Your task to perform on an android device: turn off location history Image 0: 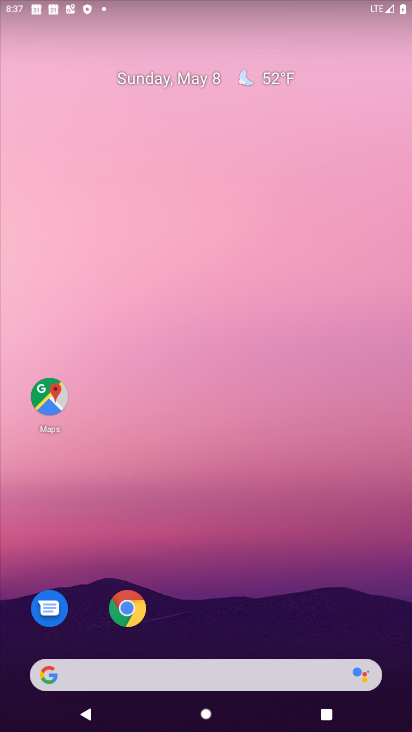
Step 0: drag from (291, 552) to (243, 3)
Your task to perform on an android device: turn off location history Image 1: 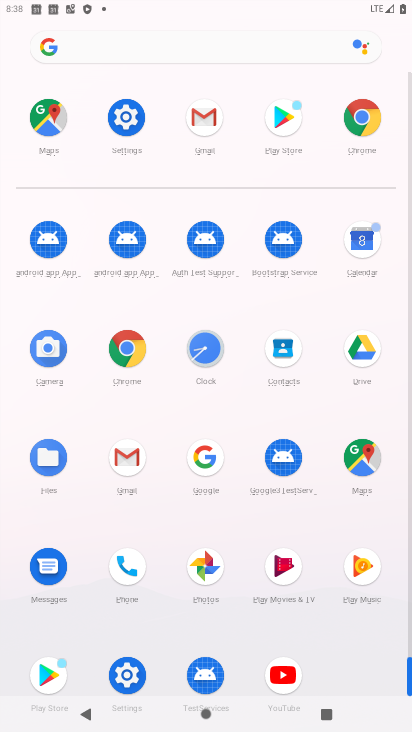
Step 1: click (124, 675)
Your task to perform on an android device: turn off location history Image 2: 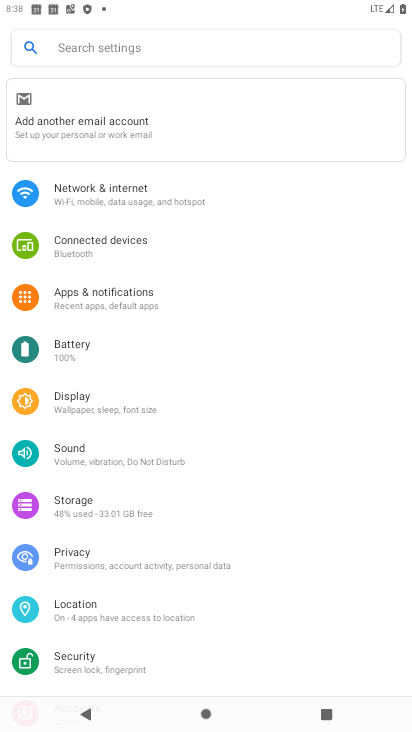
Step 2: drag from (355, 550) to (288, 121)
Your task to perform on an android device: turn off location history Image 3: 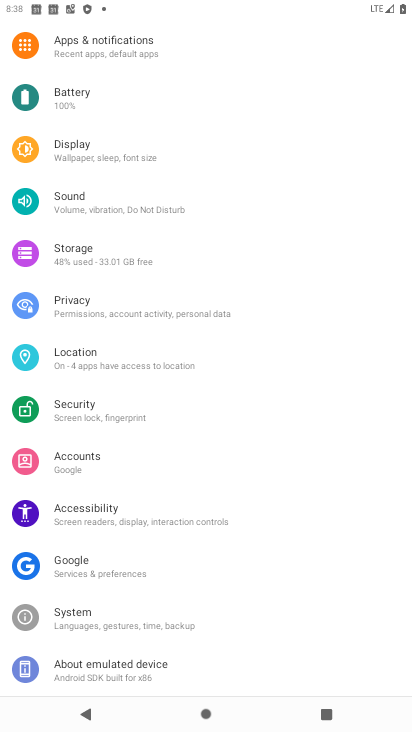
Step 3: click (94, 357)
Your task to perform on an android device: turn off location history Image 4: 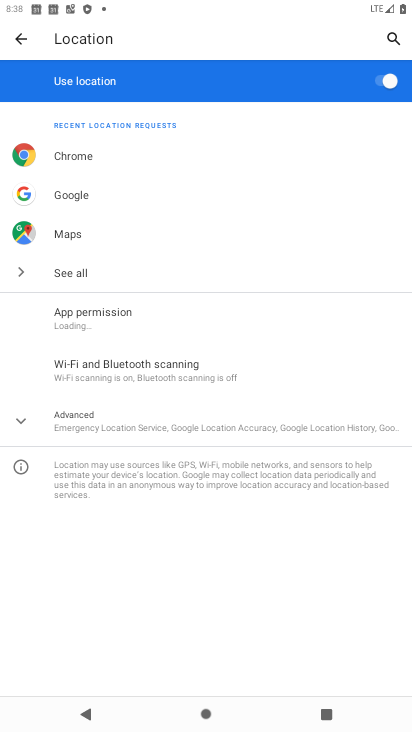
Step 4: click (49, 420)
Your task to perform on an android device: turn off location history Image 5: 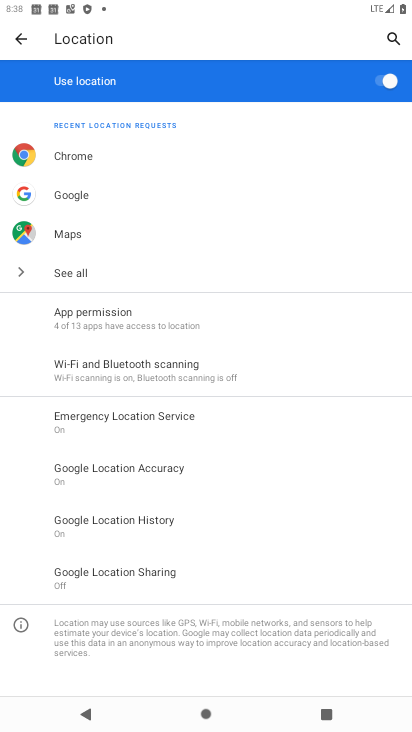
Step 5: click (116, 525)
Your task to perform on an android device: turn off location history Image 6: 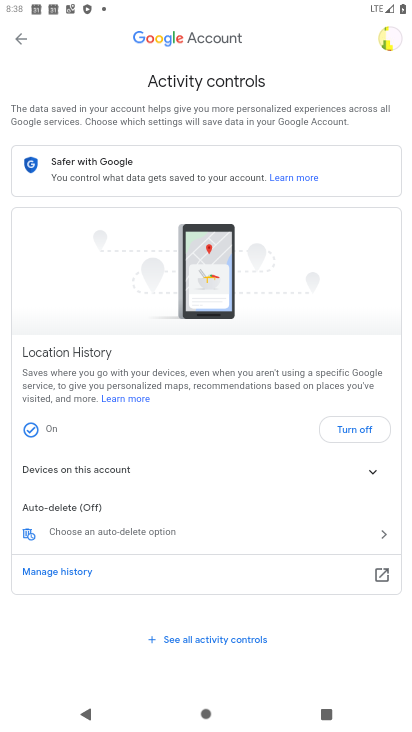
Step 6: click (353, 430)
Your task to perform on an android device: turn off location history Image 7: 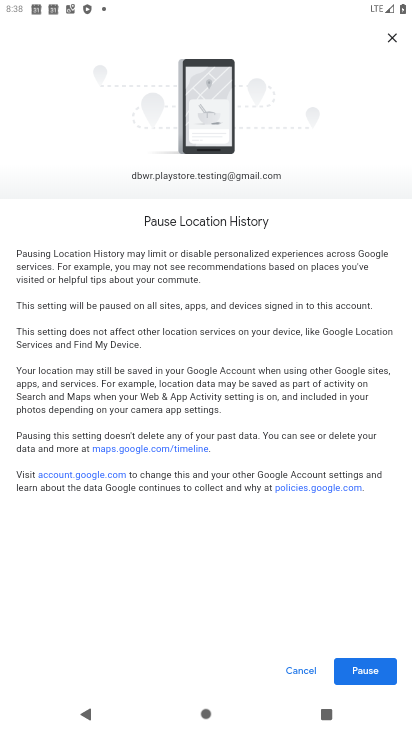
Step 7: click (359, 675)
Your task to perform on an android device: turn off location history Image 8: 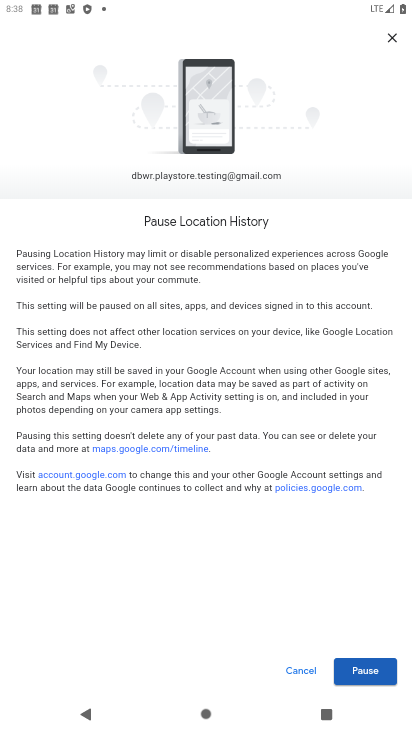
Step 8: click (359, 671)
Your task to perform on an android device: turn off location history Image 9: 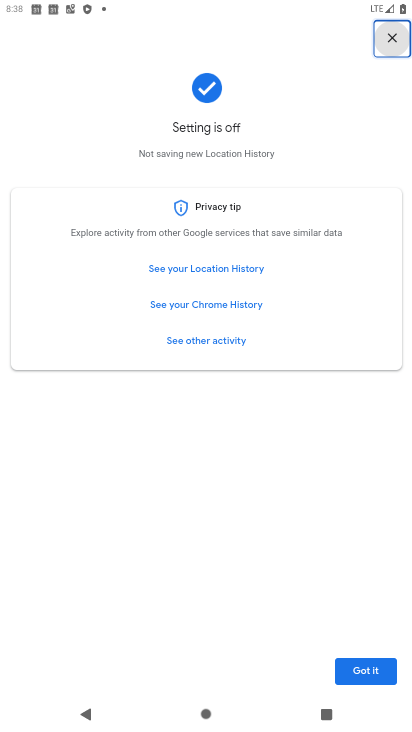
Step 9: task complete